Your task to perform on an android device: Go to Maps Image 0: 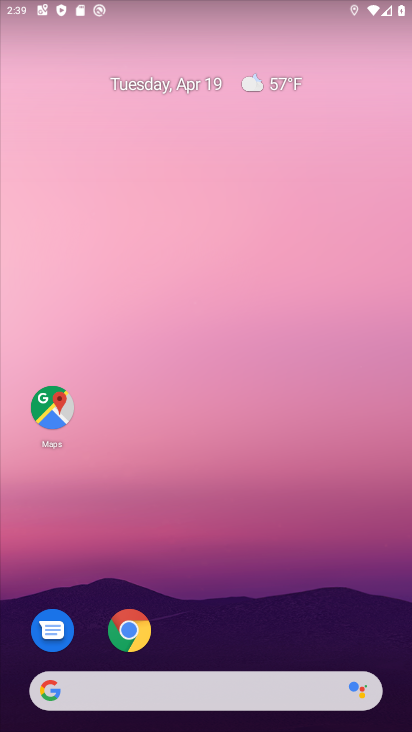
Step 0: click (60, 416)
Your task to perform on an android device: Go to Maps Image 1: 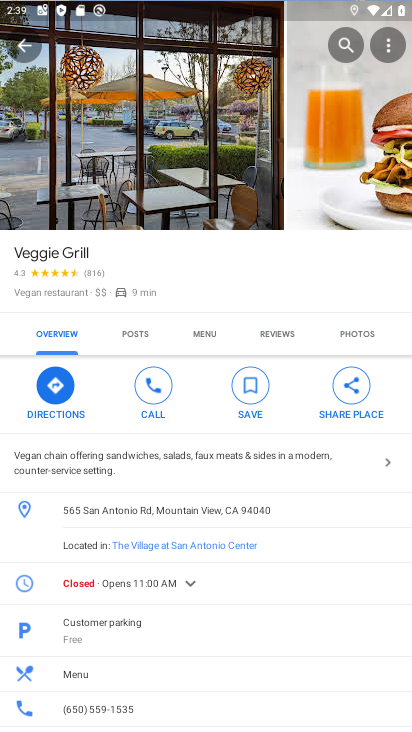
Step 1: task complete